Your task to perform on an android device: turn on the 24-hour format for clock Image 0: 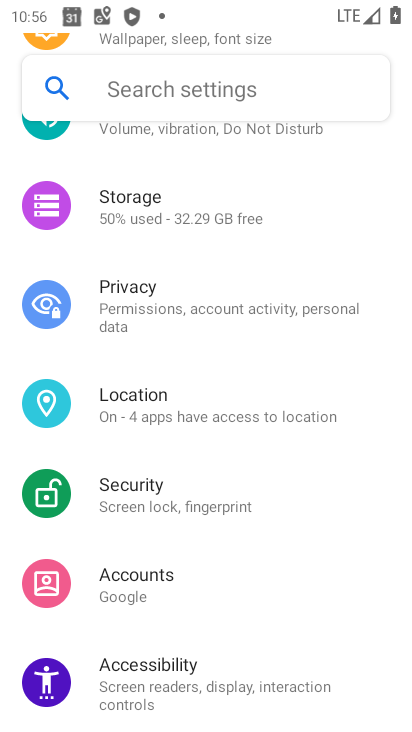
Step 0: press home button
Your task to perform on an android device: turn on the 24-hour format for clock Image 1: 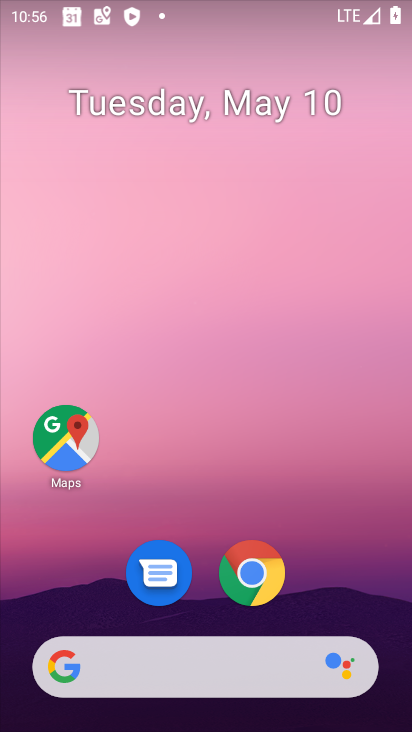
Step 1: drag from (341, 554) to (209, 55)
Your task to perform on an android device: turn on the 24-hour format for clock Image 2: 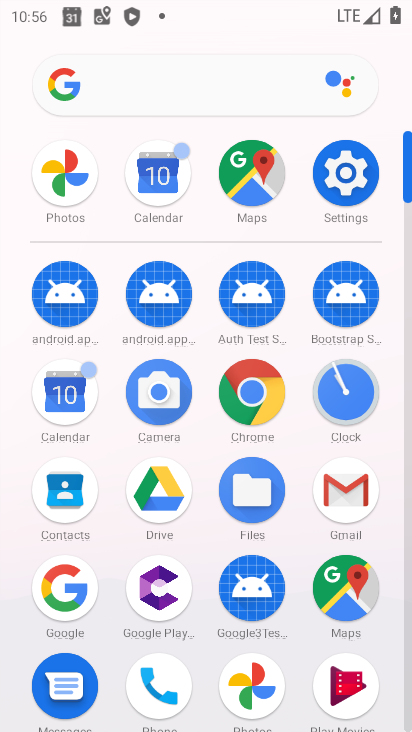
Step 2: click (348, 407)
Your task to perform on an android device: turn on the 24-hour format for clock Image 3: 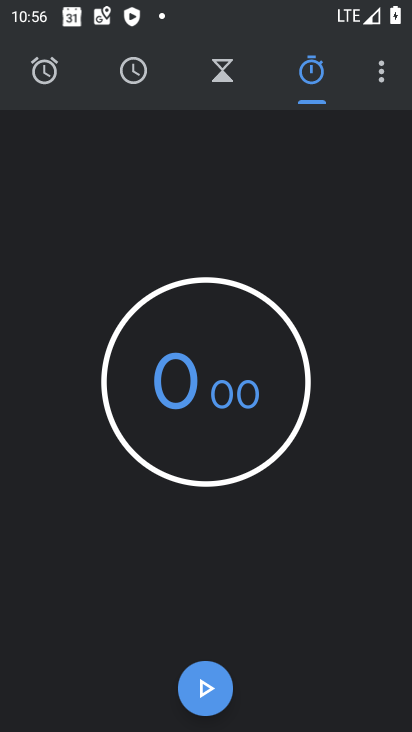
Step 3: click (383, 68)
Your task to perform on an android device: turn on the 24-hour format for clock Image 4: 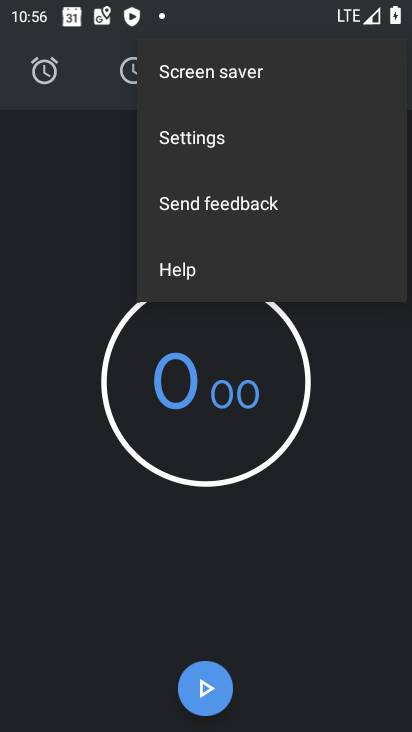
Step 4: click (207, 143)
Your task to perform on an android device: turn on the 24-hour format for clock Image 5: 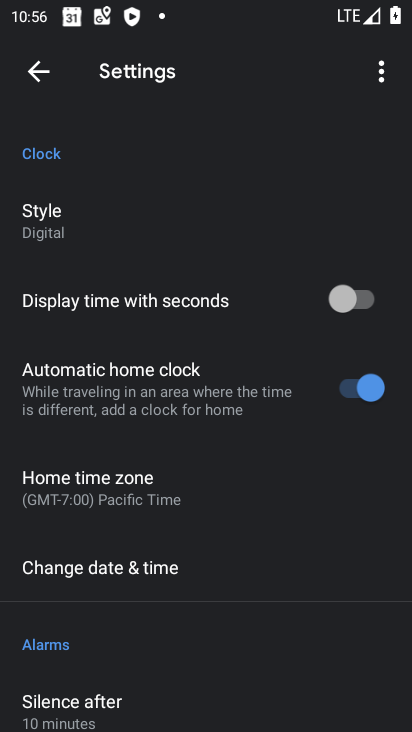
Step 5: click (136, 565)
Your task to perform on an android device: turn on the 24-hour format for clock Image 6: 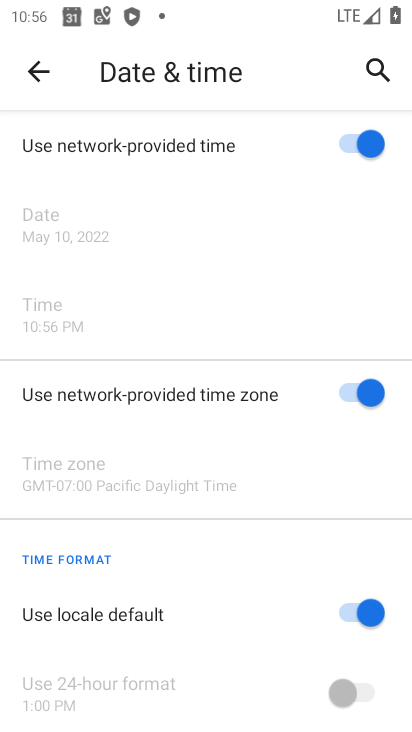
Step 6: drag from (218, 559) to (165, 270)
Your task to perform on an android device: turn on the 24-hour format for clock Image 7: 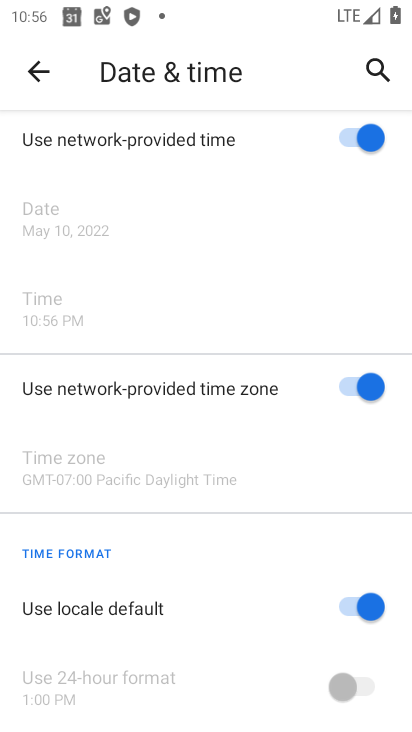
Step 7: click (365, 610)
Your task to perform on an android device: turn on the 24-hour format for clock Image 8: 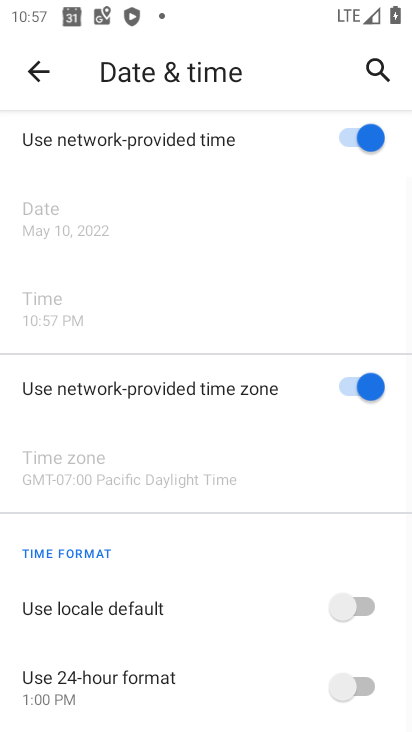
Step 8: click (358, 685)
Your task to perform on an android device: turn on the 24-hour format for clock Image 9: 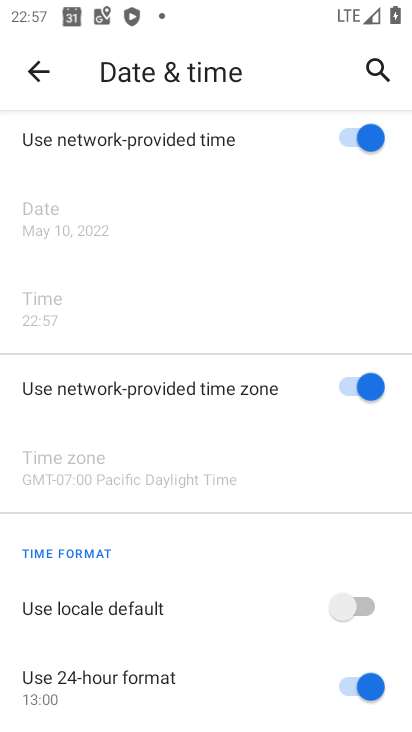
Step 9: task complete